Your task to perform on an android device: turn off notifications settings in the gmail app Image 0: 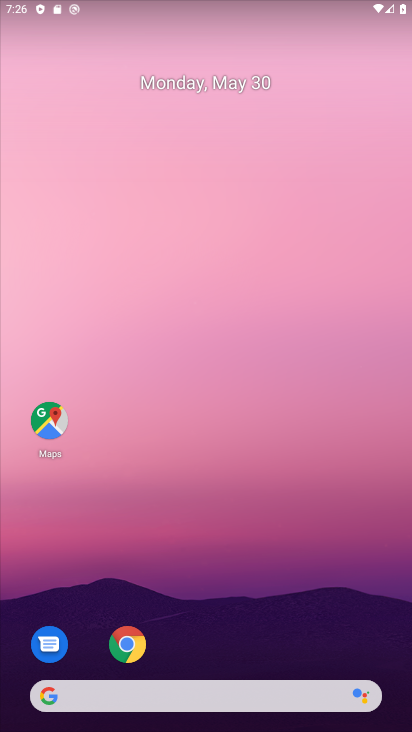
Step 0: drag from (255, 646) to (160, 160)
Your task to perform on an android device: turn off notifications settings in the gmail app Image 1: 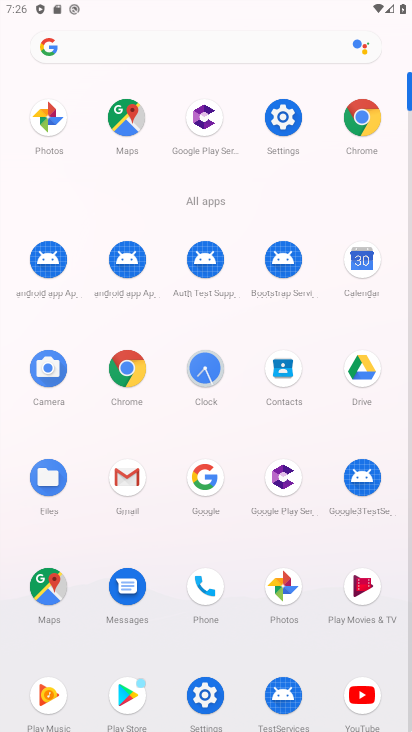
Step 1: click (125, 475)
Your task to perform on an android device: turn off notifications settings in the gmail app Image 2: 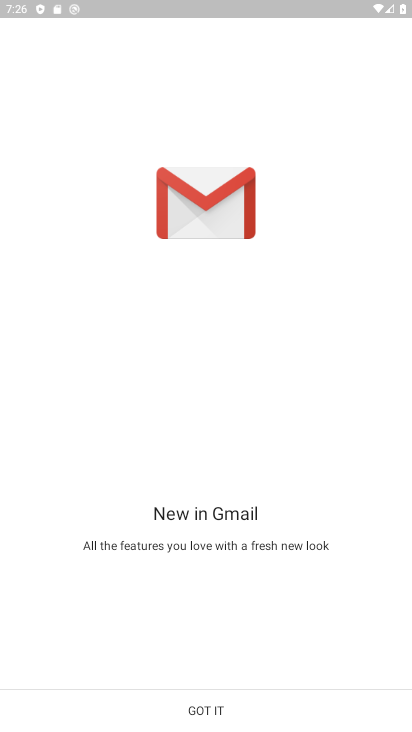
Step 2: click (207, 713)
Your task to perform on an android device: turn off notifications settings in the gmail app Image 3: 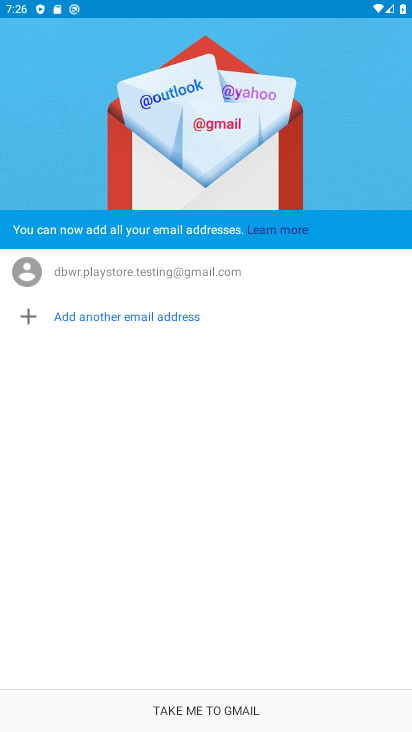
Step 3: click (207, 713)
Your task to perform on an android device: turn off notifications settings in the gmail app Image 4: 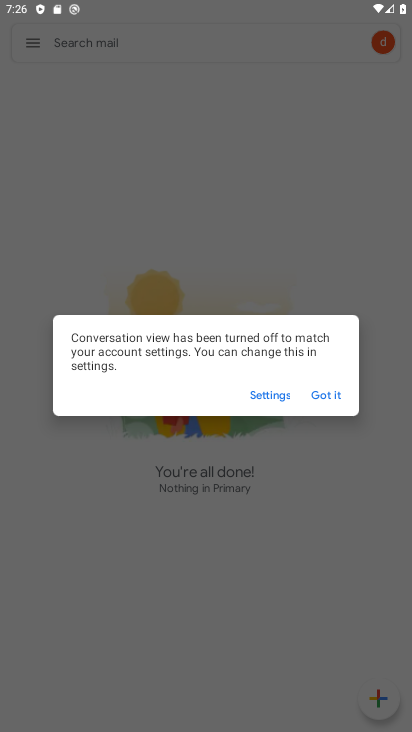
Step 4: click (329, 396)
Your task to perform on an android device: turn off notifications settings in the gmail app Image 5: 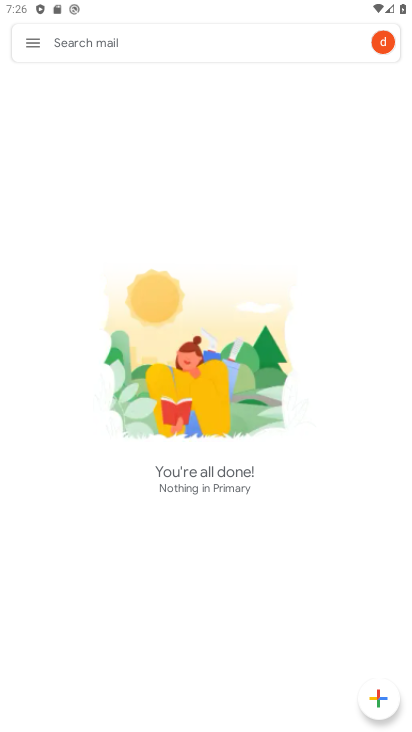
Step 5: click (32, 46)
Your task to perform on an android device: turn off notifications settings in the gmail app Image 6: 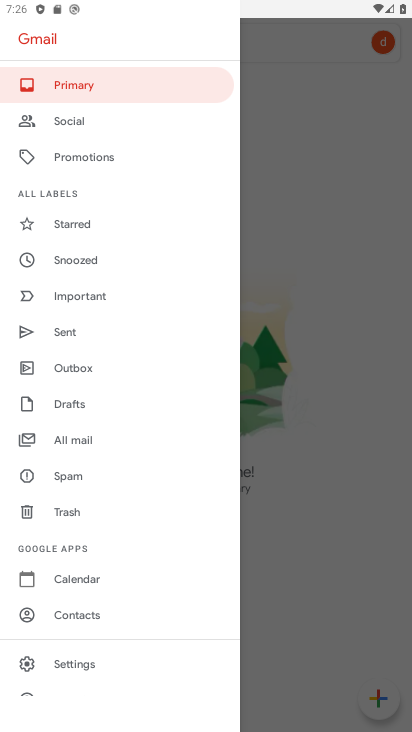
Step 6: click (75, 664)
Your task to perform on an android device: turn off notifications settings in the gmail app Image 7: 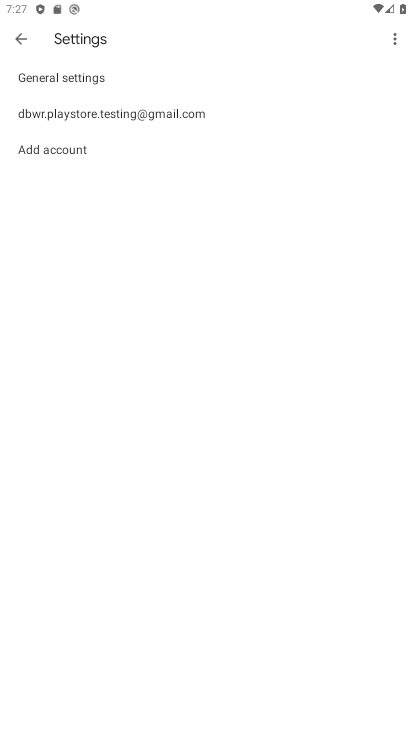
Step 7: click (111, 115)
Your task to perform on an android device: turn off notifications settings in the gmail app Image 8: 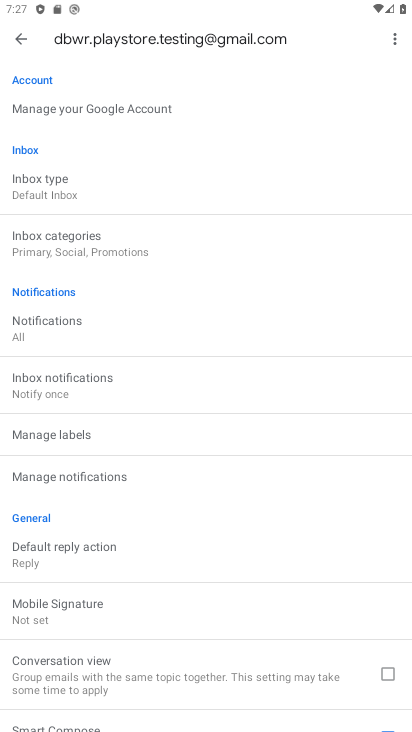
Step 8: click (67, 477)
Your task to perform on an android device: turn off notifications settings in the gmail app Image 9: 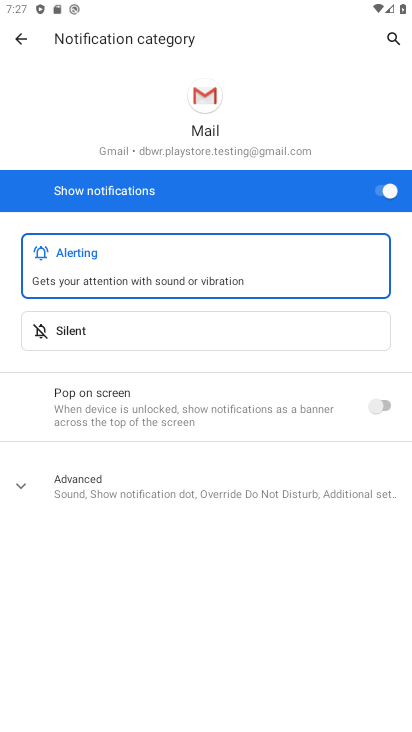
Step 9: click (380, 188)
Your task to perform on an android device: turn off notifications settings in the gmail app Image 10: 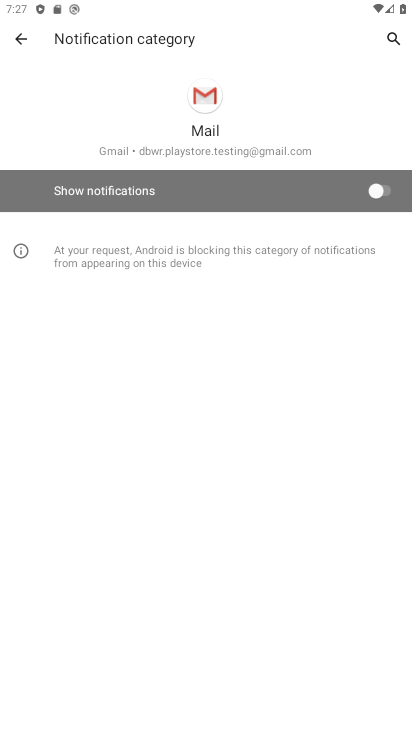
Step 10: task complete